Your task to perform on an android device: Open Google Maps and go to "Timeline" Image 0: 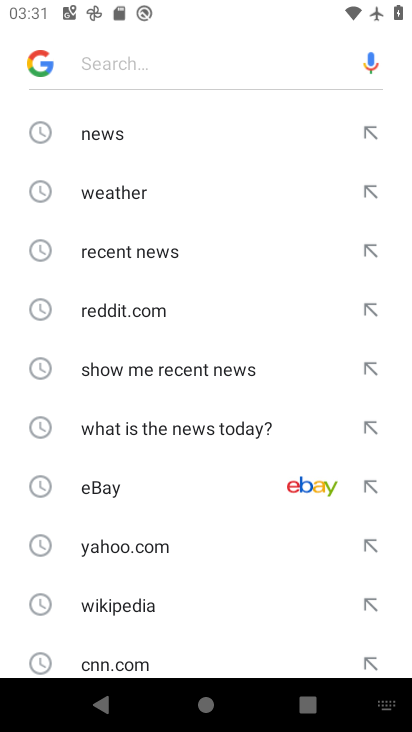
Step 0: press home button
Your task to perform on an android device: Open Google Maps and go to "Timeline" Image 1: 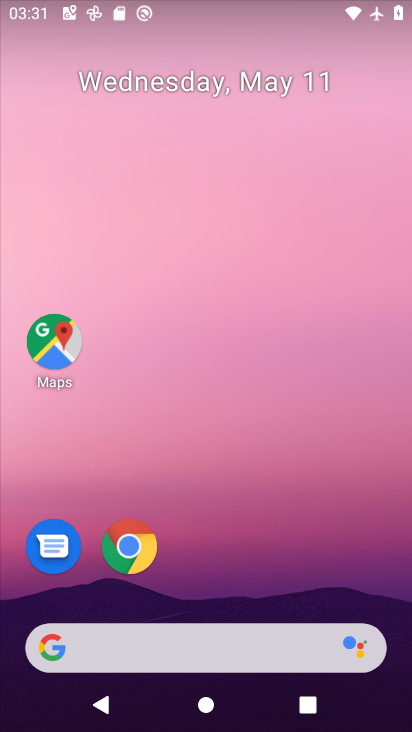
Step 1: drag from (196, 583) to (234, 151)
Your task to perform on an android device: Open Google Maps and go to "Timeline" Image 2: 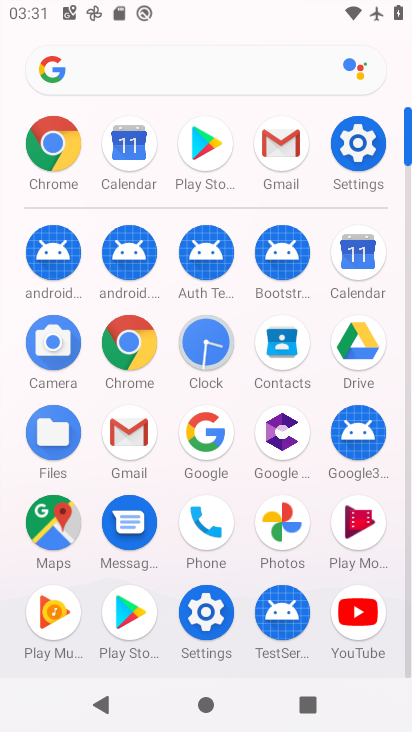
Step 2: click (44, 522)
Your task to perform on an android device: Open Google Maps and go to "Timeline" Image 3: 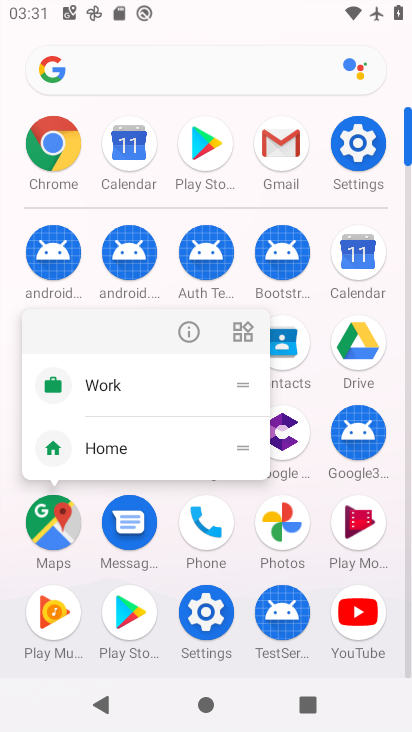
Step 3: click (187, 321)
Your task to perform on an android device: Open Google Maps and go to "Timeline" Image 4: 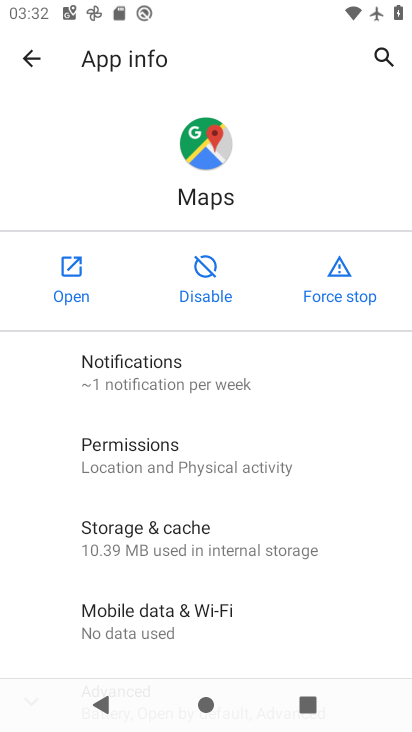
Step 4: click (74, 283)
Your task to perform on an android device: Open Google Maps and go to "Timeline" Image 5: 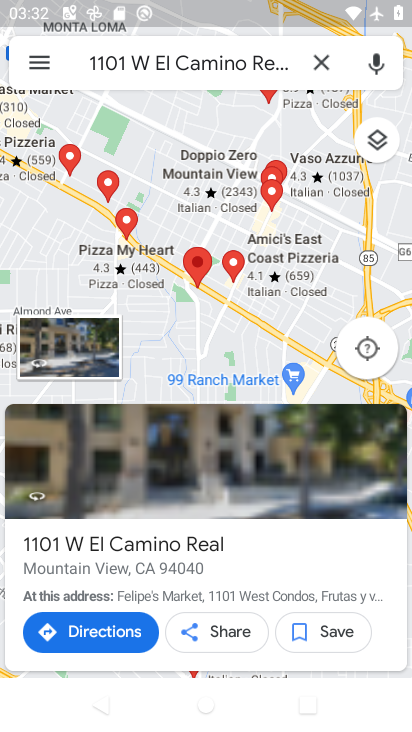
Step 5: click (40, 67)
Your task to perform on an android device: Open Google Maps and go to "Timeline" Image 6: 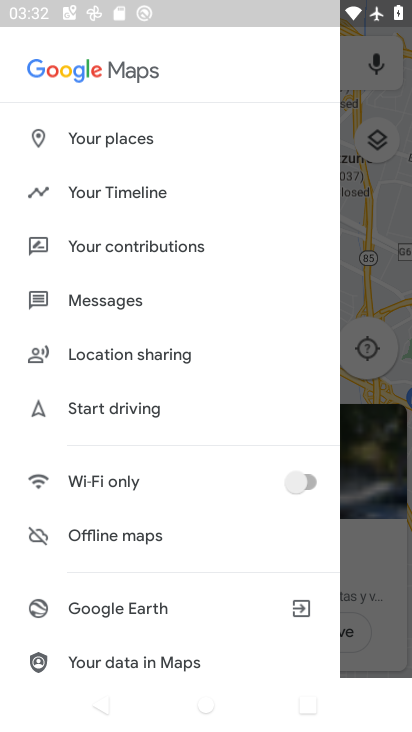
Step 6: click (159, 192)
Your task to perform on an android device: Open Google Maps and go to "Timeline" Image 7: 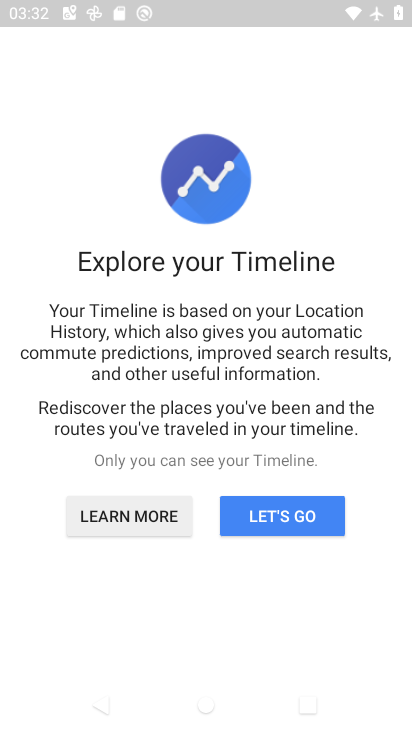
Step 7: click (294, 507)
Your task to perform on an android device: Open Google Maps and go to "Timeline" Image 8: 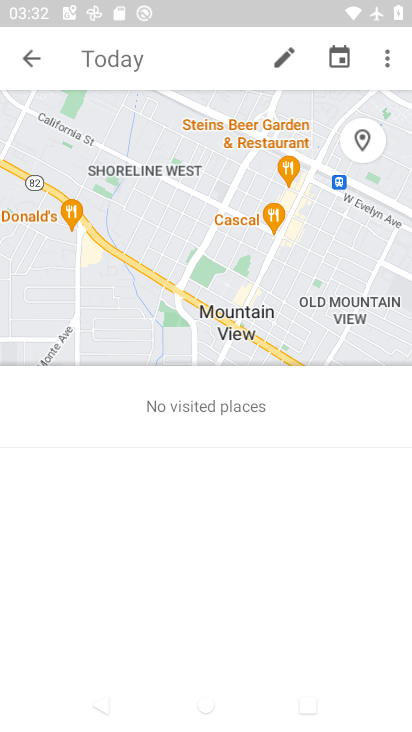
Step 8: task complete